Your task to perform on an android device: create a new album in the google photos Image 0: 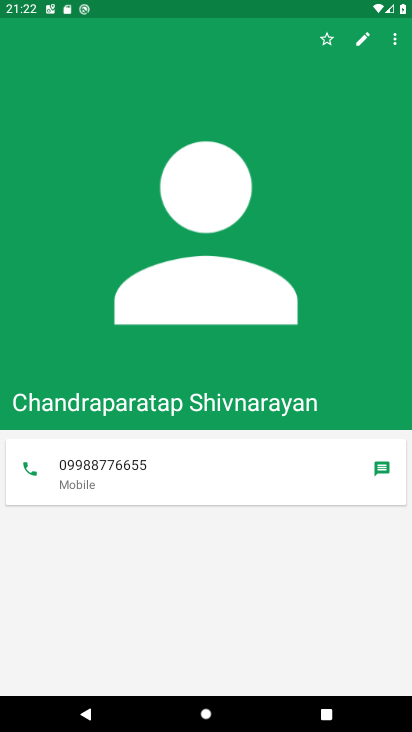
Step 0: press back button
Your task to perform on an android device: create a new album in the google photos Image 1: 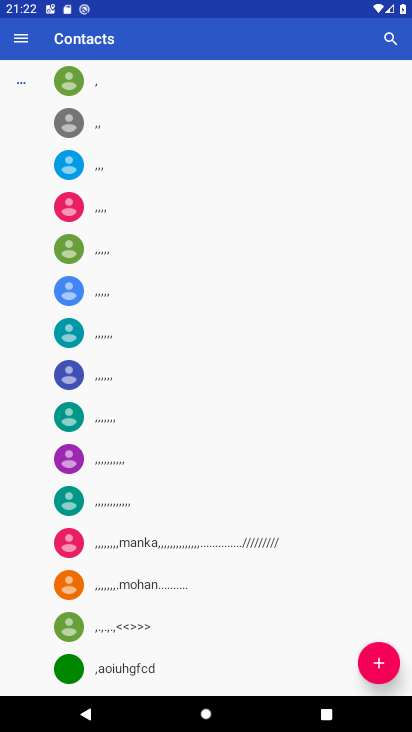
Step 1: press back button
Your task to perform on an android device: create a new album in the google photos Image 2: 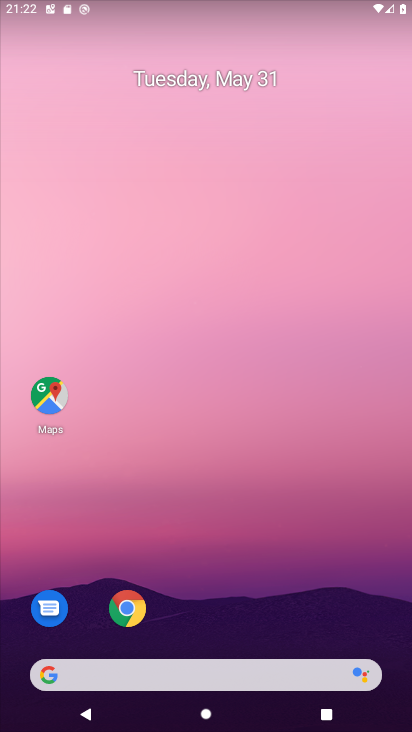
Step 2: drag from (257, 592) to (187, 121)
Your task to perform on an android device: create a new album in the google photos Image 3: 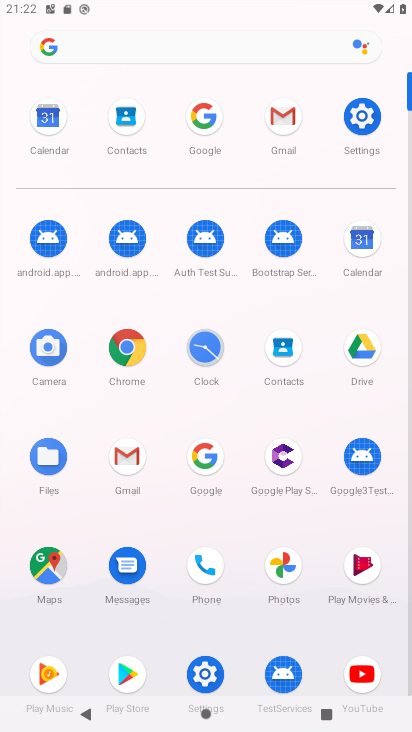
Step 3: drag from (230, 454) to (220, 284)
Your task to perform on an android device: create a new album in the google photos Image 4: 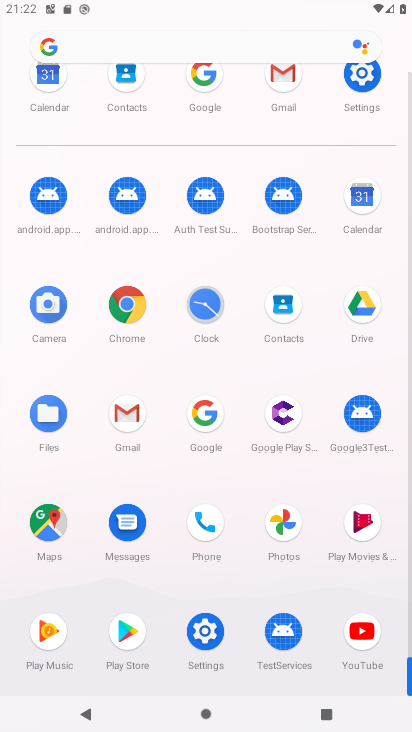
Step 4: click (282, 520)
Your task to perform on an android device: create a new album in the google photos Image 5: 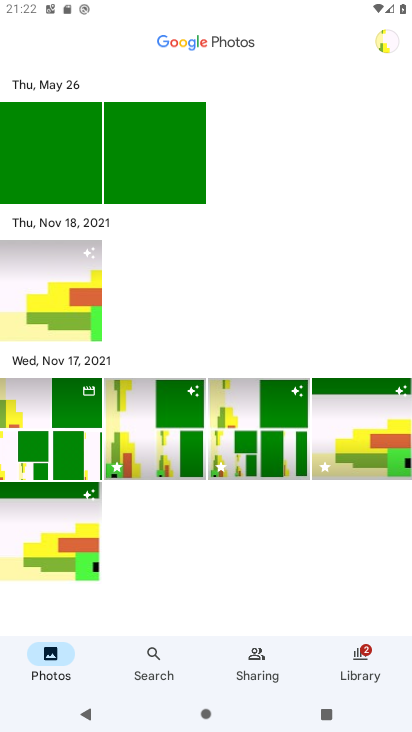
Step 5: click (361, 655)
Your task to perform on an android device: create a new album in the google photos Image 6: 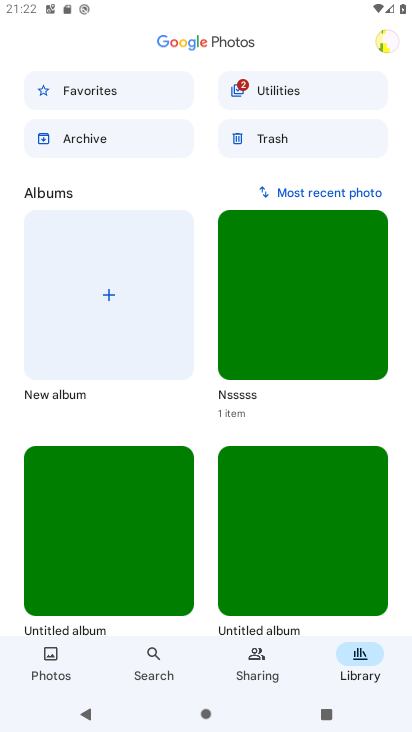
Step 6: click (108, 296)
Your task to perform on an android device: create a new album in the google photos Image 7: 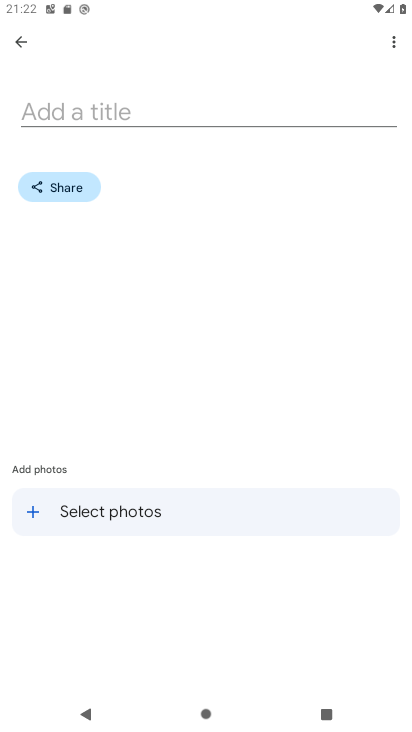
Step 7: click (227, 97)
Your task to perform on an android device: create a new album in the google photos Image 8: 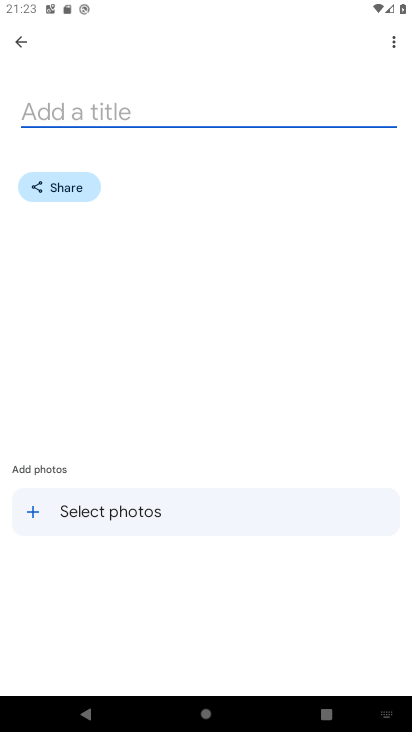
Step 8: type "Kuch Is tarah"
Your task to perform on an android device: create a new album in the google photos Image 9: 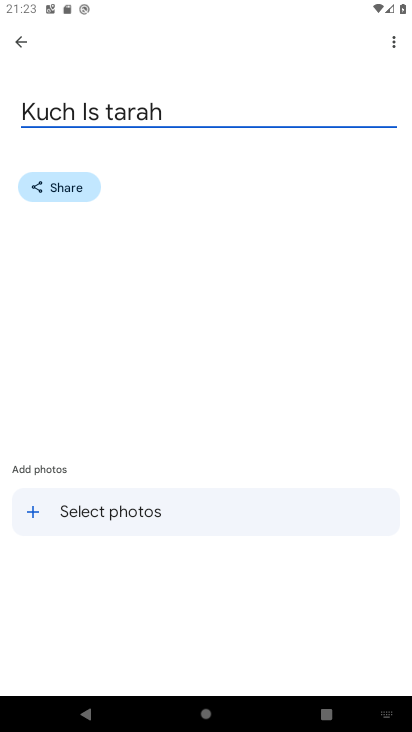
Step 9: click (30, 507)
Your task to perform on an android device: create a new album in the google photos Image 10: 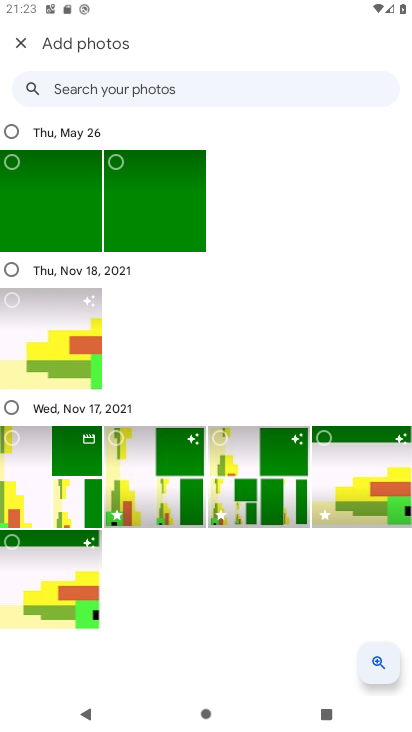
Step 10: click (12, 134)
Your task to perform on an android device: create a new album in the google photos Image 11: 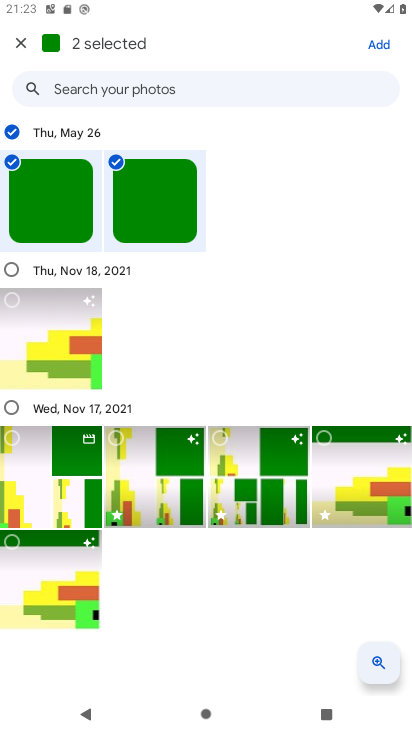
Step 11: click (386, 39)
Your task to perform on an android device: create a new album in the google photos Image 12: 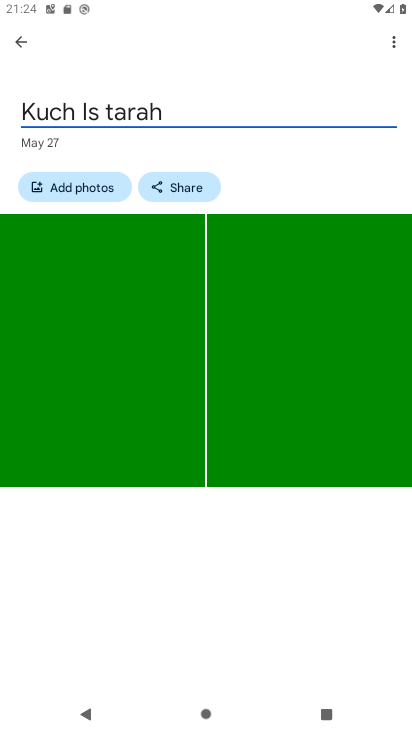
Step 12: task complete